Your task to perform on an android device: open chrome and create a bookmark for the current page Image 0: 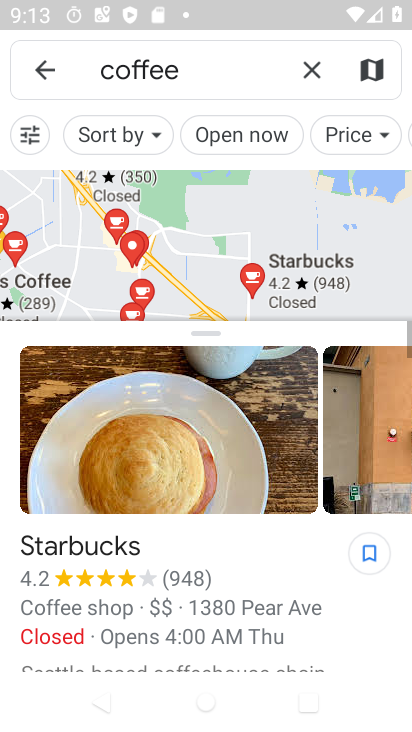
Step 0: press home button
Your task to perform on an android device: open chrome and create a bookmark for the current page Image 1: 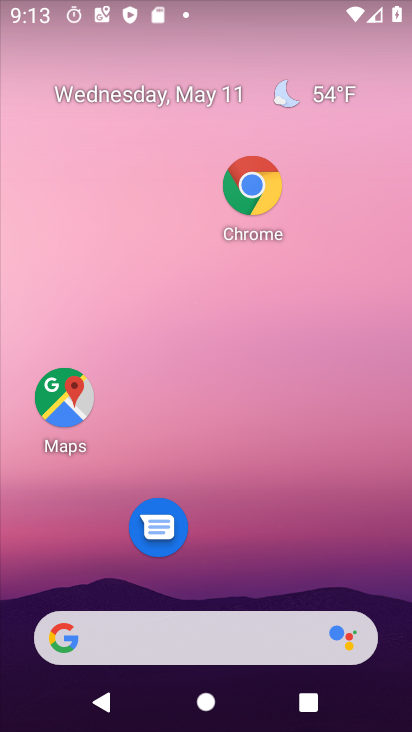
Step 1: click (252, 183)
Your task to perform on an android device: open chrome and create a bookmark for the current page Image 2: 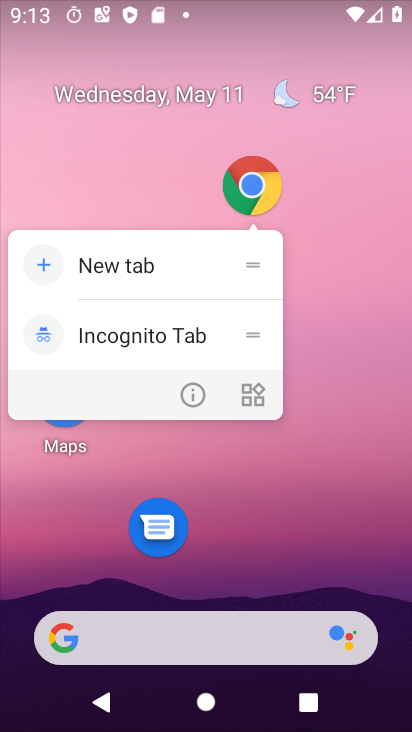
Step 2: click (252, 184)
Your task to perform on an android device: open chrome and create a bookmark for the current page Image 3: 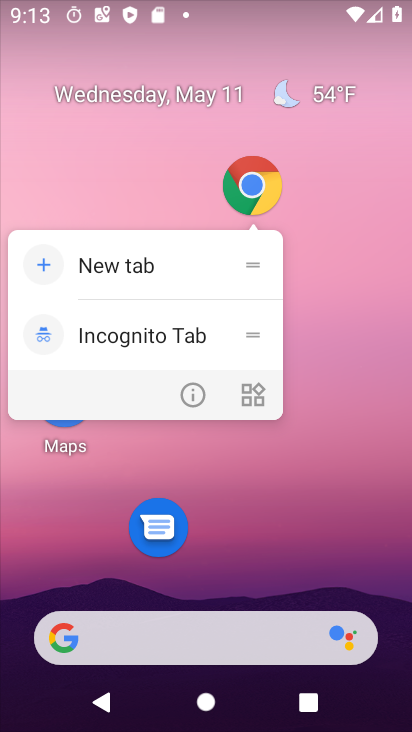
Step 3: click (252, 184)
Your task to perform on an android device: open chrome and create a bookmark for the current page Image 4: 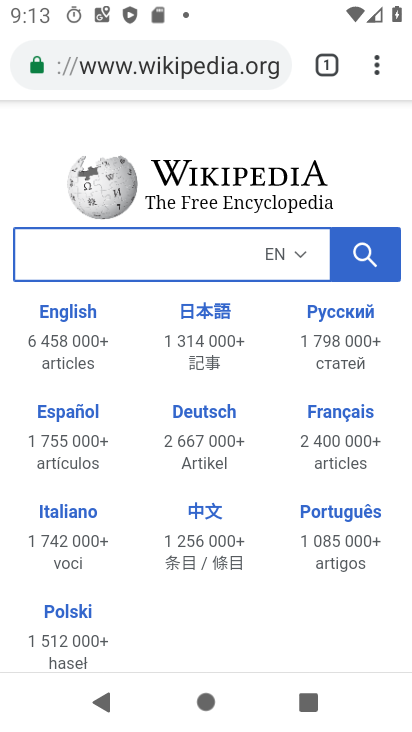
Step 4: click (371, 63)
Your task to perform on an android device: open chrome and create a bookmark for the current page Image 5: 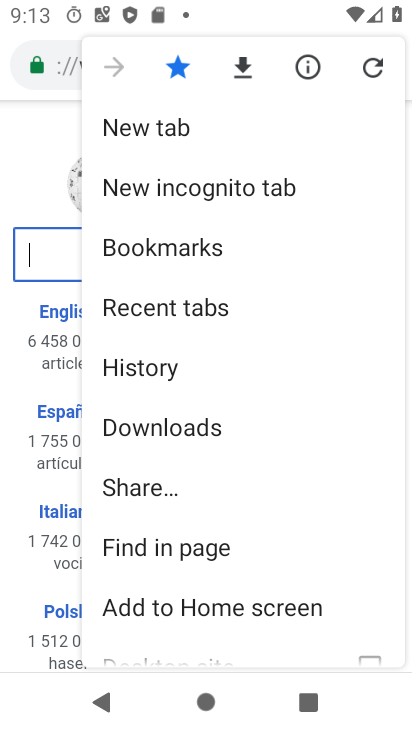
Step 5: task complete